Your task to perform on an android device: uninstall "The Home Depot" Image 0: 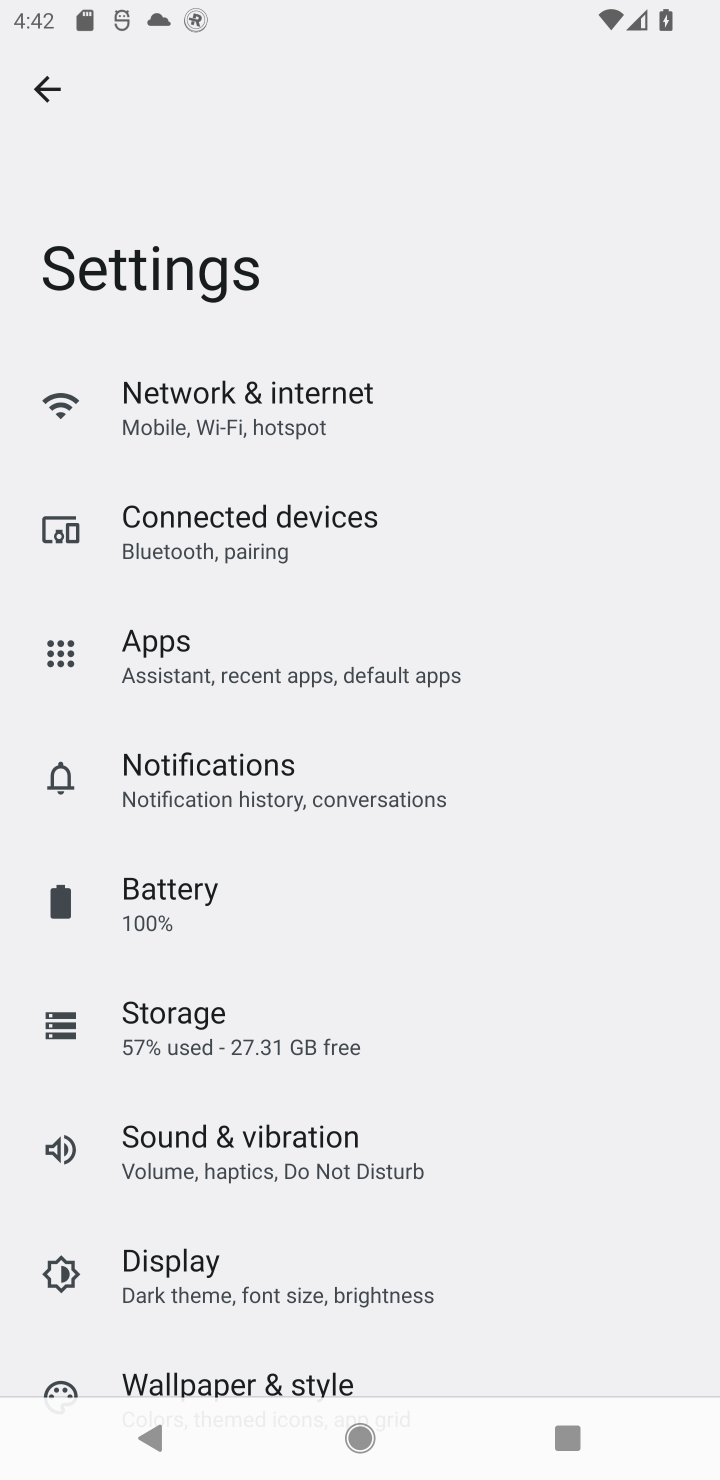
Step 0: task impossible